Your task to perform on an android device: toggle airplane mode Image 0: 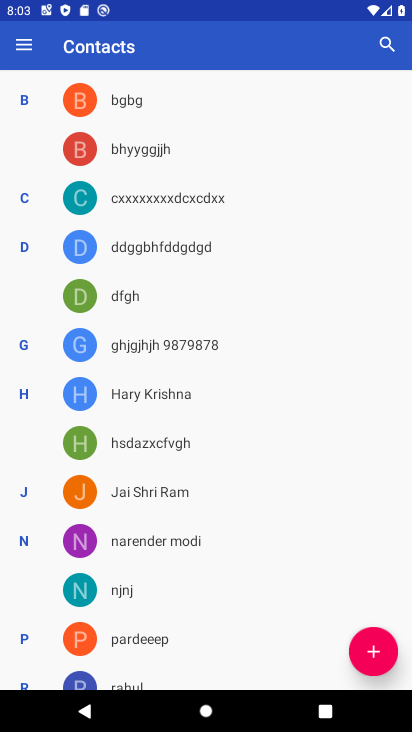
Step 0: press home button
Your task to perform on an android device: toggle airplane mode Image 1: 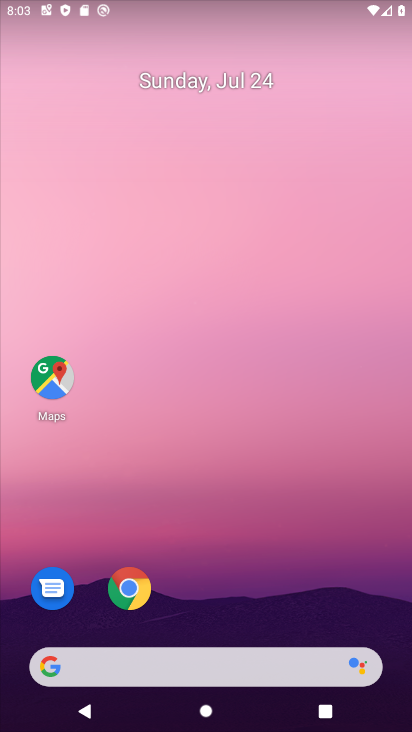
Step 1: drag from (345, 611) to (239, 53)
Your task to perform on an android device: toggle airplane mode Image 2: 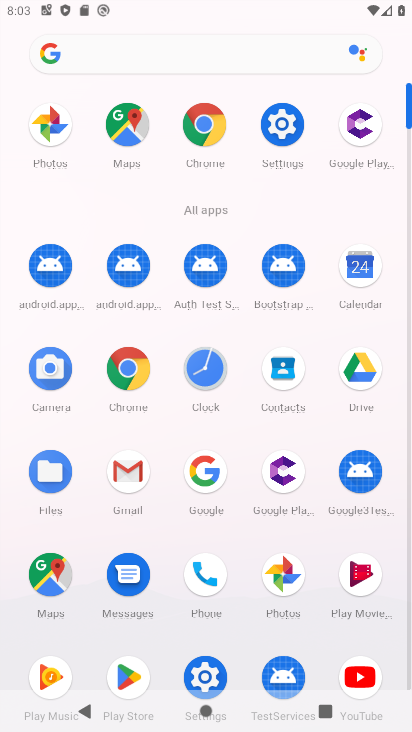
Step 2: click (287, 124)
Your task to perform on an android device: toggle airplane mode Image 3: 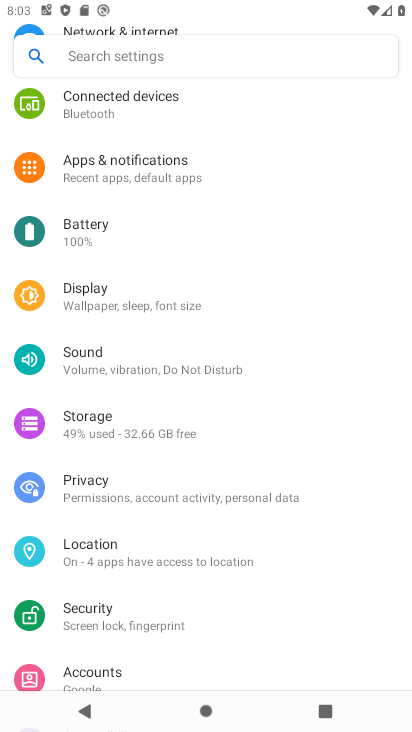
Step 3: drag from (198, 115) to (186, 469)
Your task to perform on an android device: toggle airplane mode Image 4: 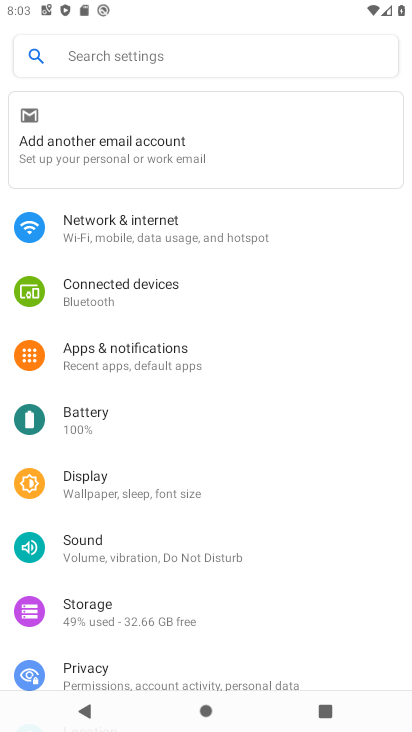
Step 4: click (160, 223)
Your task to perform on an android device: toggle airplane mode Image 5: 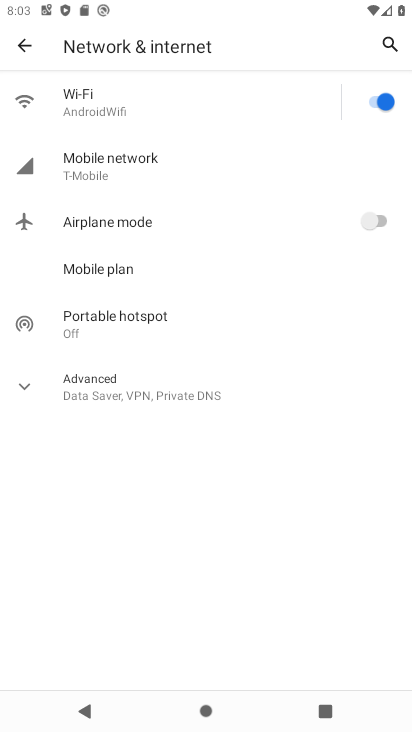
Step 5: click (360, 232)
Your task to perform on an android device: toggle airplane mode Image 6: 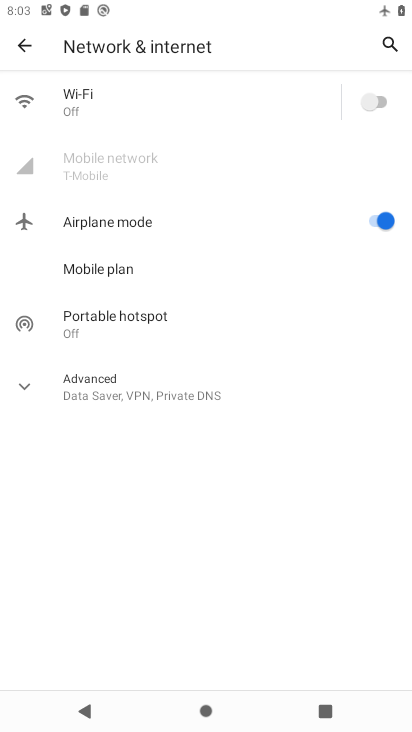
Step 6: task complete